Your task to perform on an android device: Open calendar and show me the second week of next month Image 0: 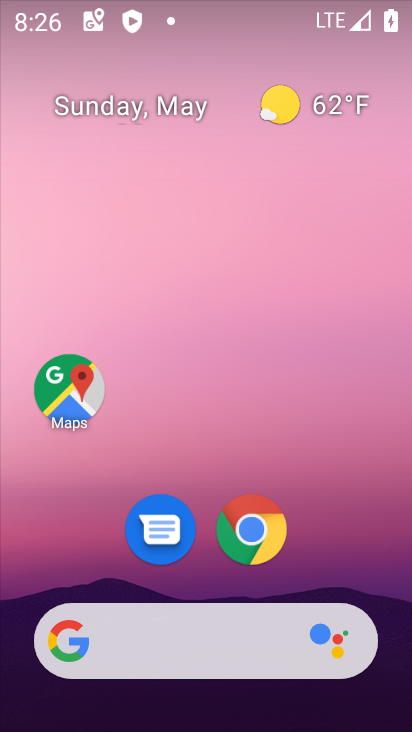
Step 0: drag from (197, 579) to (228, 94)
Your task to perform on an android device: Open calendar and show me the second week of next month Image 1: 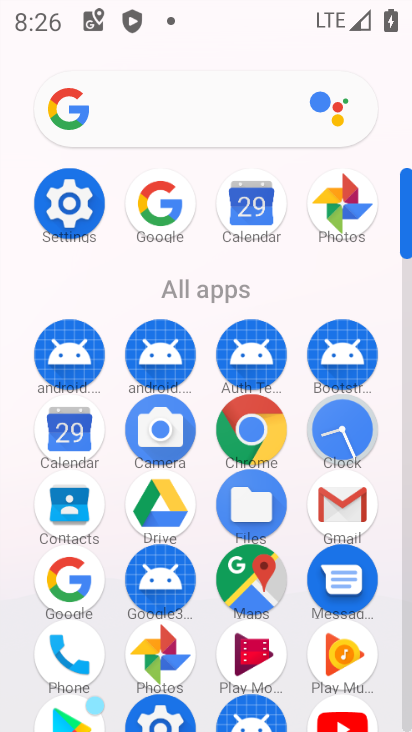
Step 1: click (254, 205)
Your task to perform on an android device: Open calendar and show me the second week of next month Image 2: 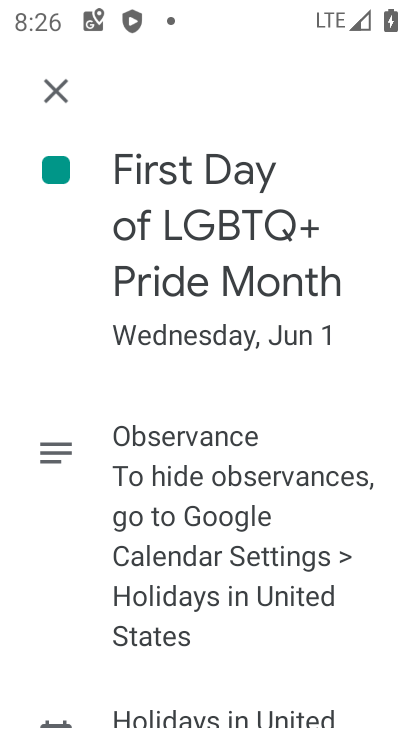
Step 2: click (47, 78)
Your task to perform on an android device: Open calendar and show me the second week of next month Image 3: 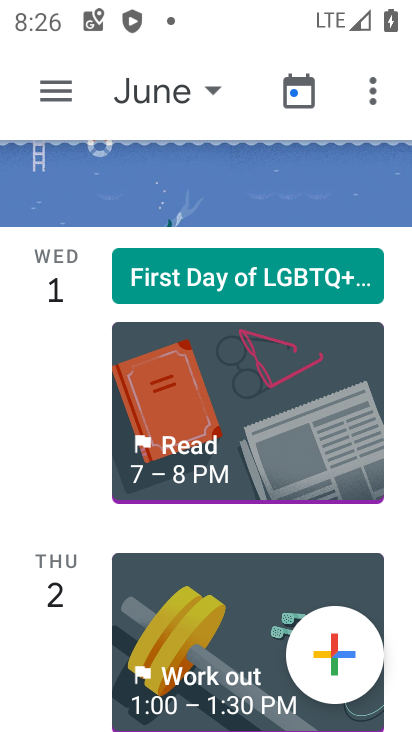
Step 3: click (184, 91)
Your task to perform on an android device: Open calendar and show me the second week of next month Image 4: 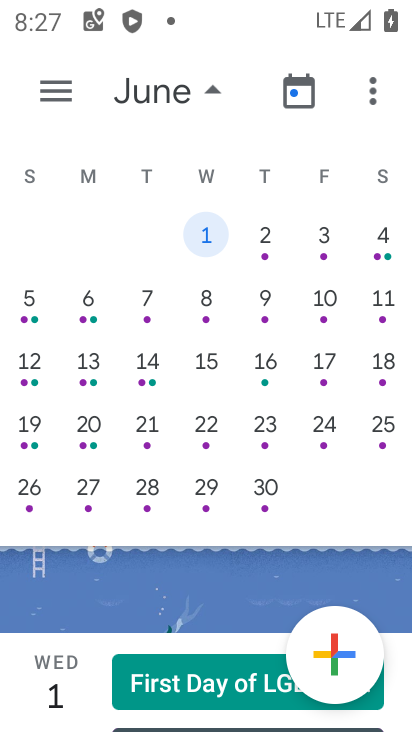
Step 4: click (85, 294)
Your task to perform on an android device: Open calendar and show me the second week of next month Image 5: 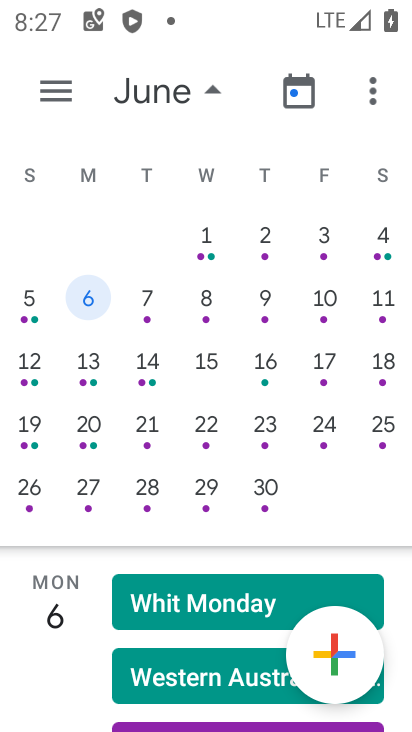
Step 5: task complete